Your task to perform on an android device: remove spam from my inbox in the gmail app Image 0: 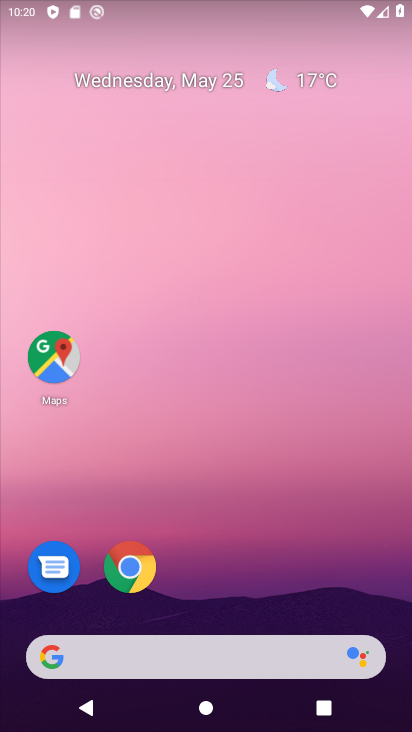
Step 0: drag from (325, 613) to (351, 98)
Your task to perform on an android device: remove spam from my inbox in the gmail app Image 1: 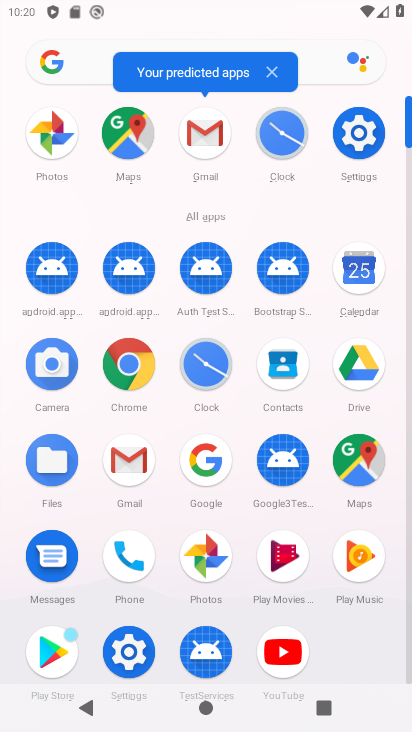
Step 1: click (105, 462)
Your task to perform on an android device: remove spam from my inbox in the gmail app Image 2: 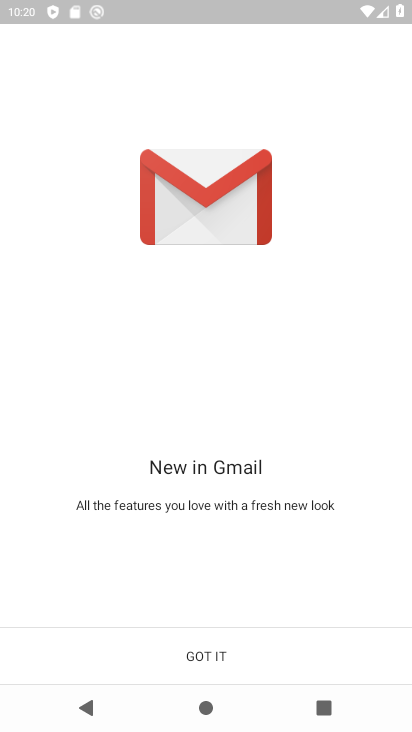
Step 2: click (214, 669)
Your task to perform on an android device: remove spam from my inbox in the gmail app Image 3: 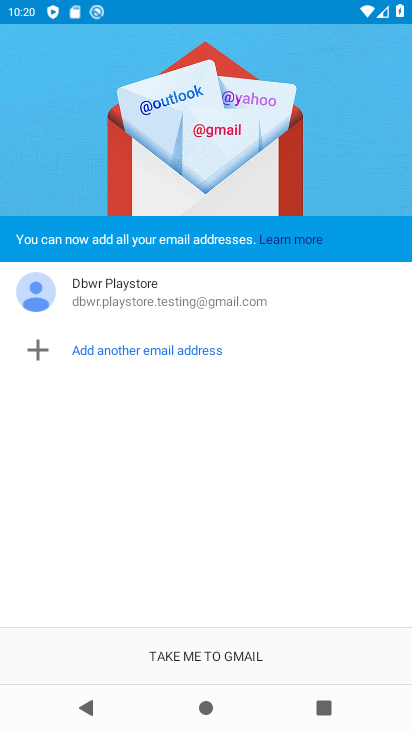
Step 3: click (214, 669)
Your task to perform on an android device: remove spam from my inbox in the gmail app Image 4: 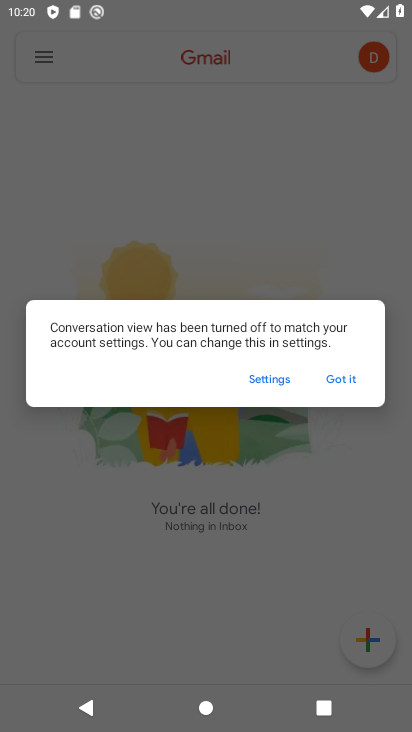
Step 4: click (343, 383)
Your task to perform on an android device: remove spam from my inbox in the gmail app Image 5: 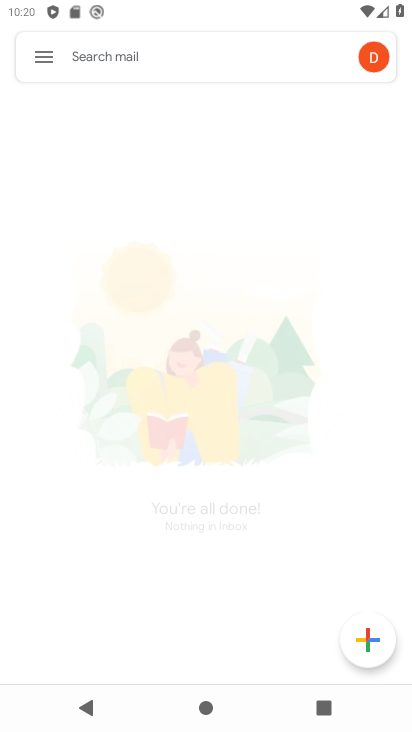
Step 5: click (27, 51)
Your task to perform on an android device: remove spam from my inbox in the gmail app Image 6: 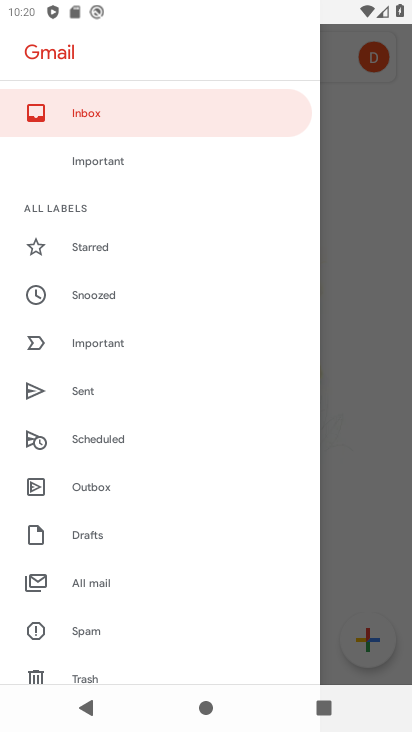
Step 6: click (94, 629)
Your task to perform on an android device: remove spam from my inbox in the gmail app Image 7: 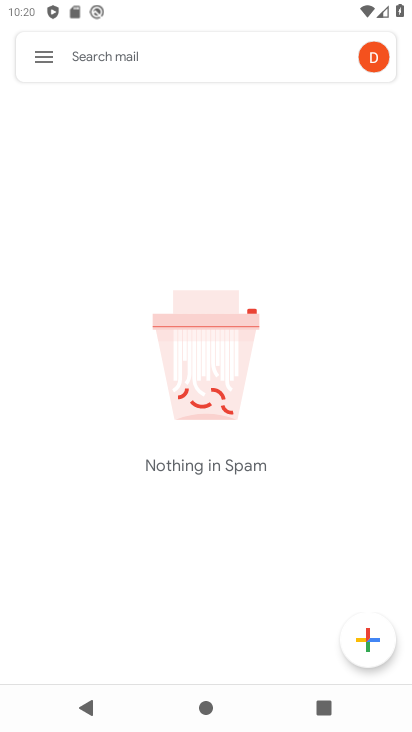
Step 7: task complete